Your task to perform on an android device: change the clock display to show seconds Image 0: 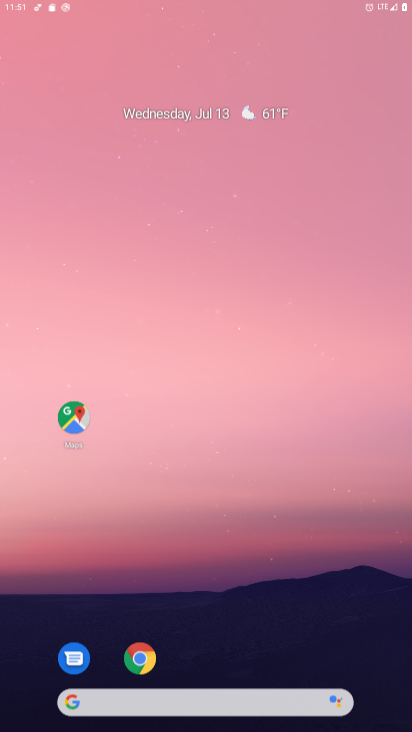
Step 0: press home button
Your task to perform on an android device: change the clock display to show seconds Image 1: 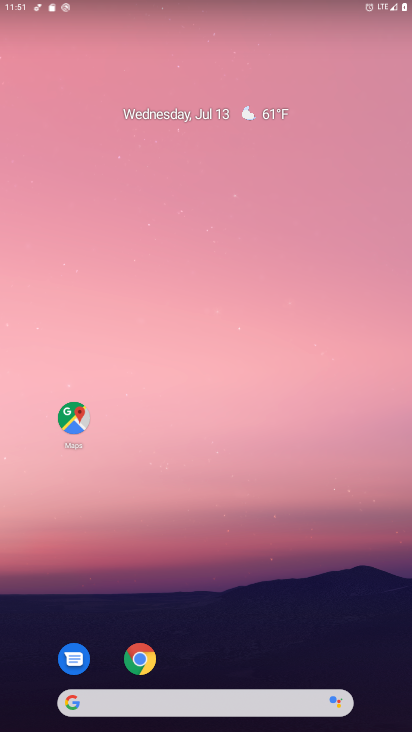
Step 1: drag from (211, 667) to (233, 1)
Your task to perform on an android device: change the clock display to show seconds Image 2: 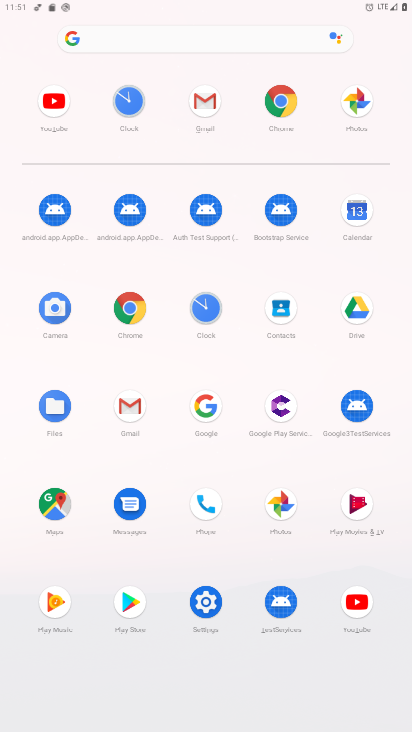
Step 2: click (205, 298)
Your task to perform on an android device: change the clock display to show seconds Image 3: 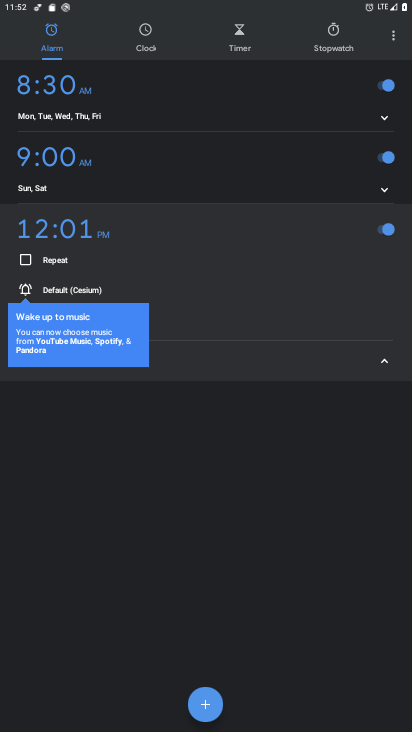
Step 3: click (395, 32)
Your task to perform on an android device: change the clock display to show seconds Image 4: 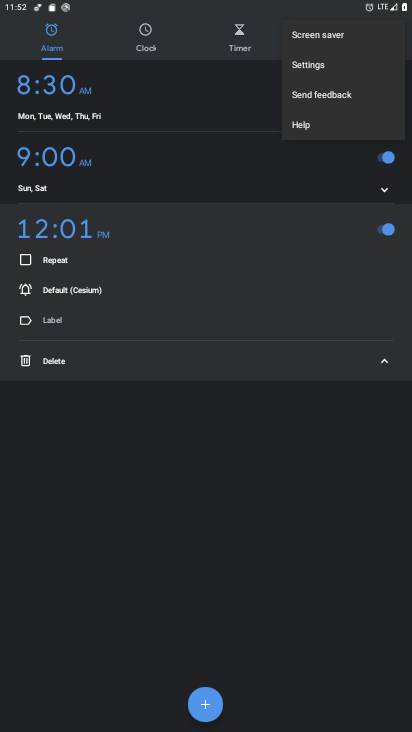
Step 4: click (326, 69)
Your task to perform on an android device: change the clock display to show seconds Image 5: 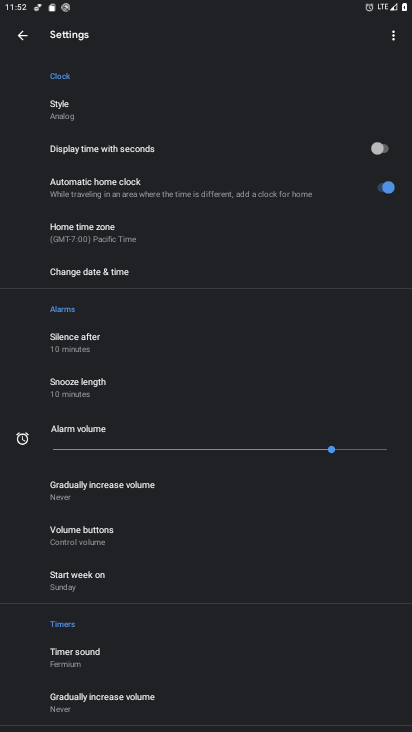
Step 5: click (373, 143)
Your task to perform on an android device: change the clock display to show seconds Image 6: 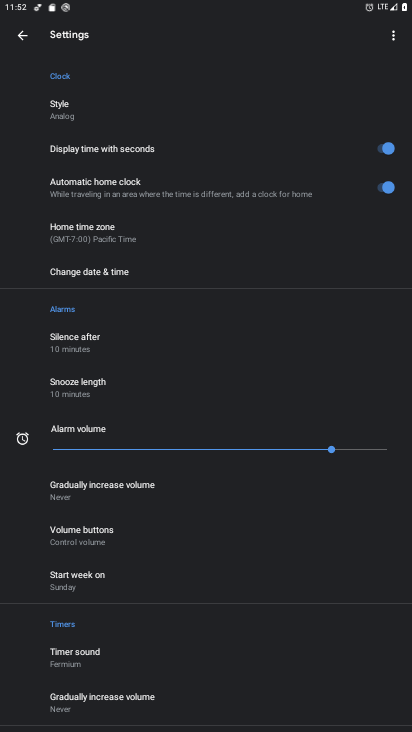
Step 6: task complete